Your task to perform on an android device: change timer sound Image 0: 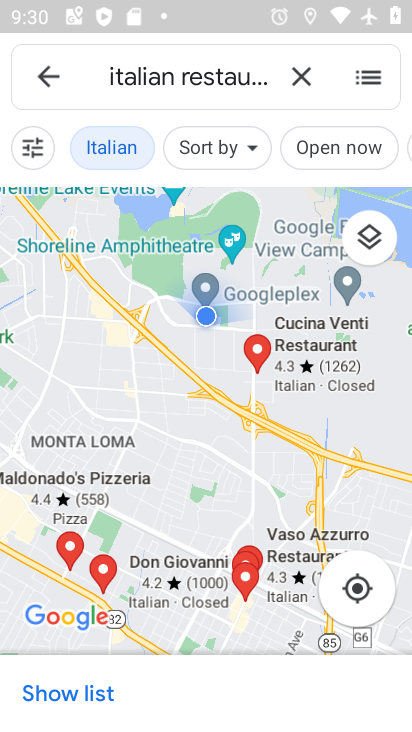
Step 0: press home button
Your task to perform on an android device: change timer sound Image 1: 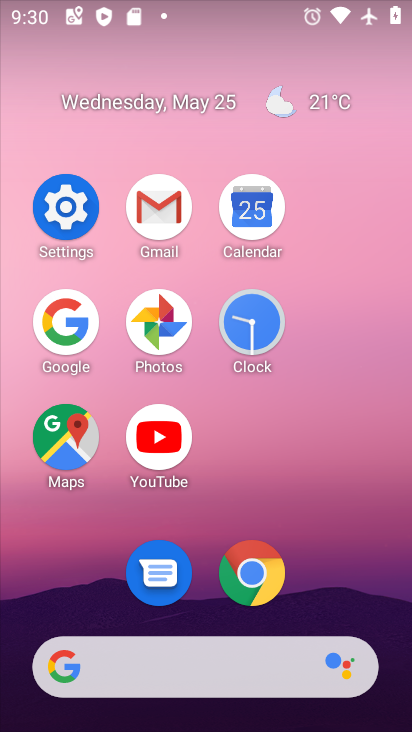
Step 1: click (259, 353)
Your task to perform on an android device: change timer sound Image 2: 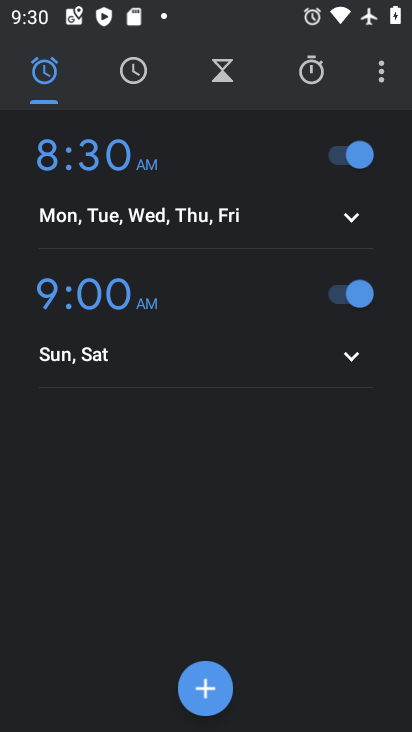
Step 2: click (409, 74)
Your task to perform on an android device: change timer sound Image 3: 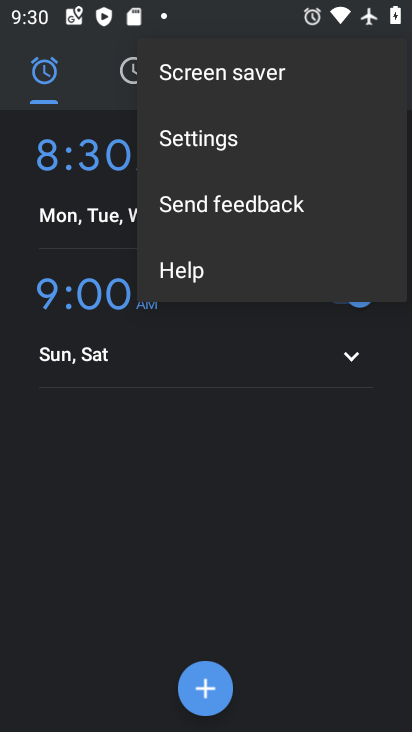
Step 3: click (260, 156)
Your task to perform on an android device: change timer sound Image 4: 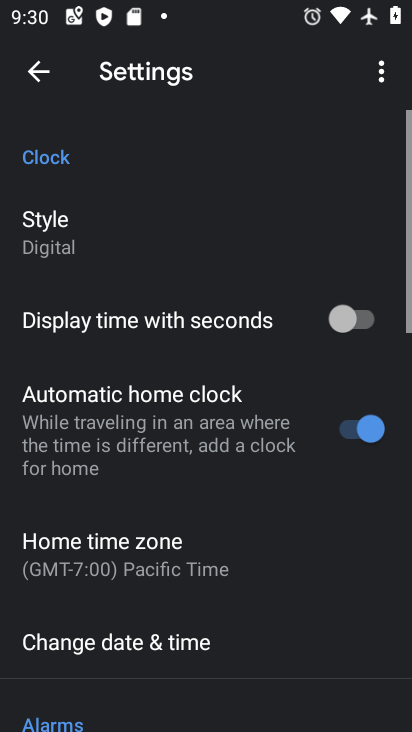
Step 4: drag from (218, 621) to (204, 211)
Your task to perform on an android device: change timer sound Image 5: 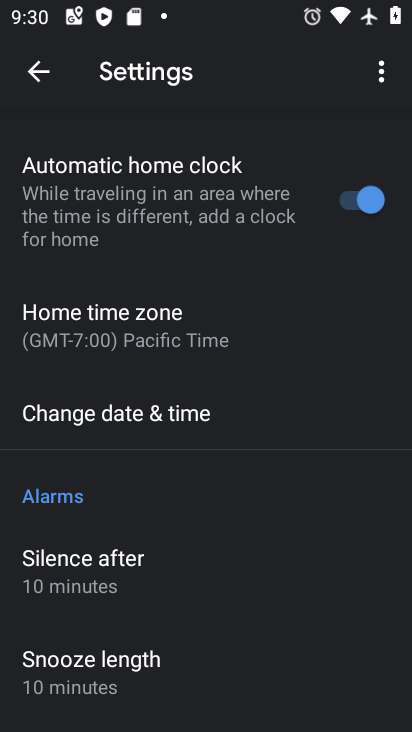
Step 5: drag from (169, 483) to (157, 236)
Your task to perform on an android device: change timer sound Image 6: 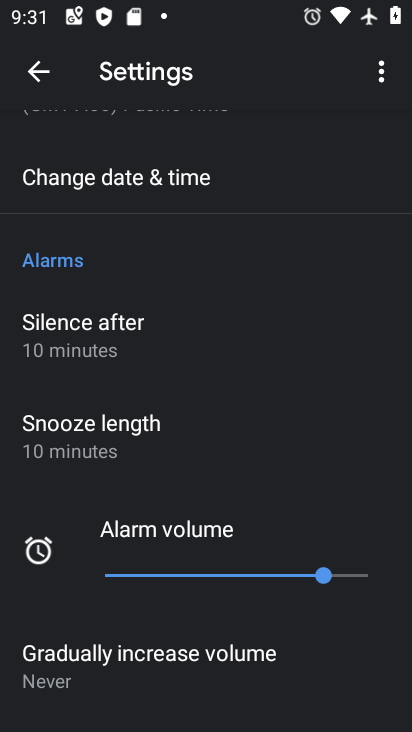
Step 6: drag from (196, 523) to (192, 170)
Your task to perform on an android device: change timer sound Image 7: 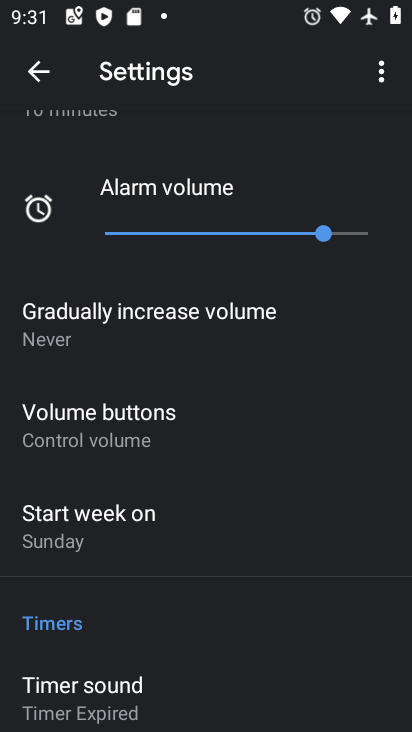
Step 7: click (144, 707)
Your task to perform on an android device: change timer sound Image 8: 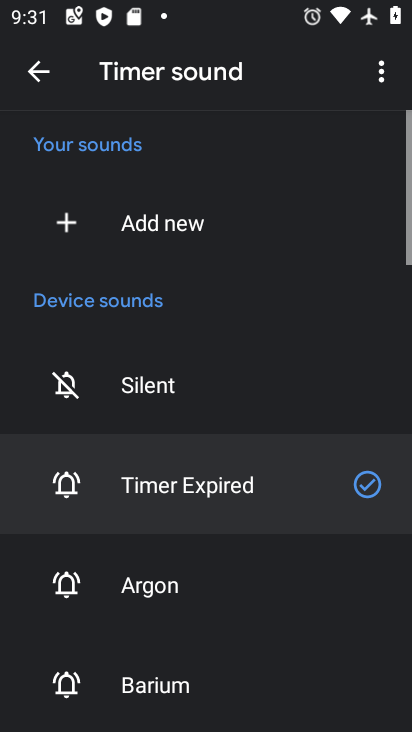
Step 8: click (171, 606)
Your task to perform on an android device: change timer sound Image 9: 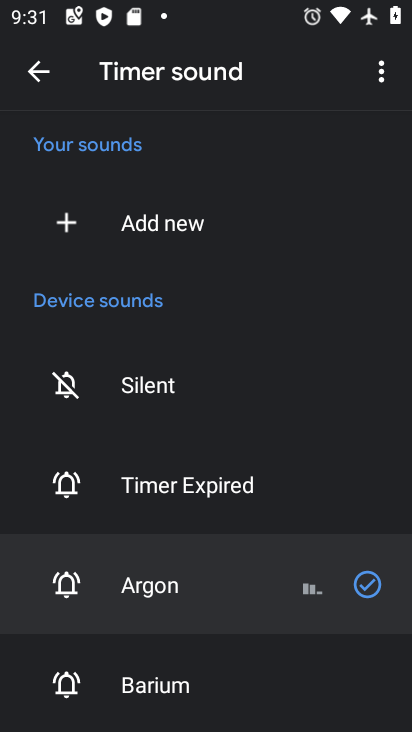
Step 9: task complete